Your task to perform on an android device: refresh tabs in the chrome app Image 0: 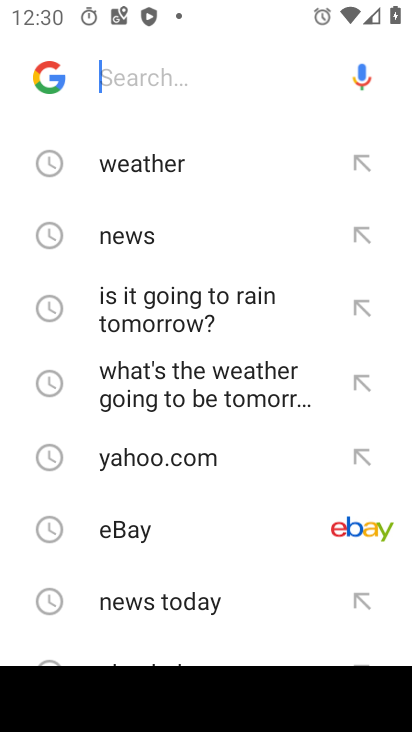
Step 0: press home button
Your task to perform on an android device: refresh tabs in the chrome app Image 1: 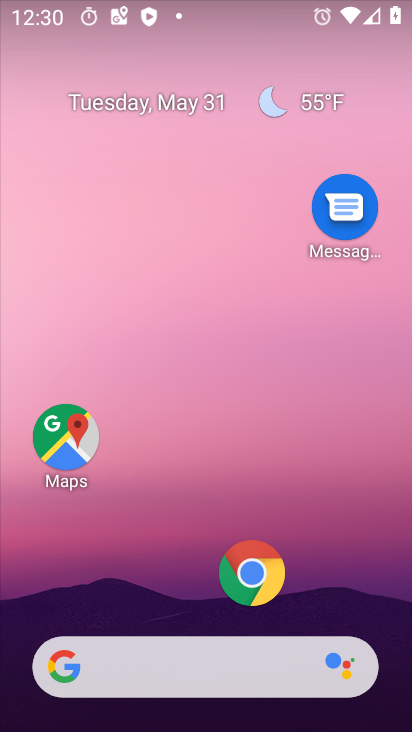
Step 1: click (247, 570)
Your task to perform on an android device: refresh tabs in the chrome app Image 2: 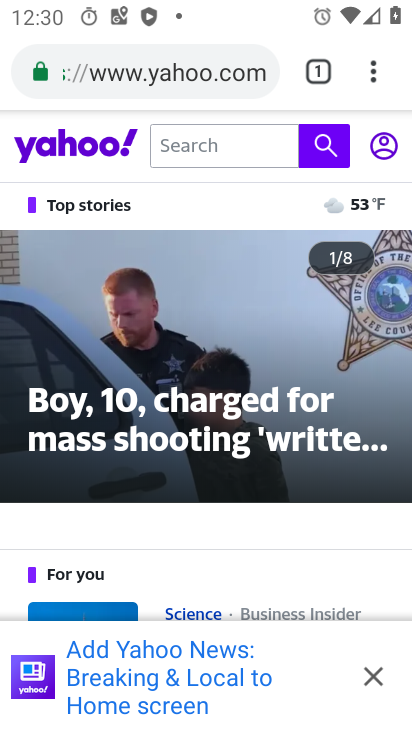
Step 2: click (375, 74)
Your task to perform on an android device: refresh tabs in the chrome app Image 3: 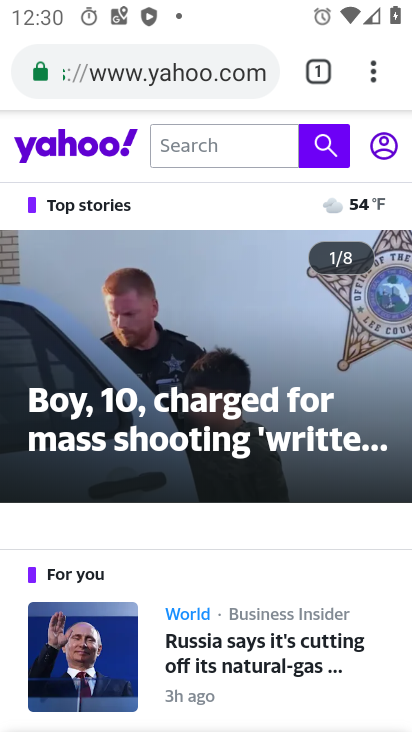
Step 3: click (377, 72)
Your task to perform on an android device: refresh tabs in the chrome app Image 4: 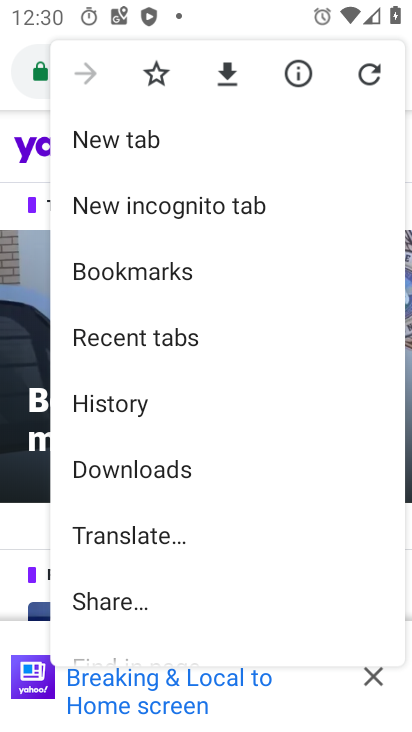
Step 4: click (373, 65)
Your task to perform on an android device: refresh tabs in the chrome app Image 5: 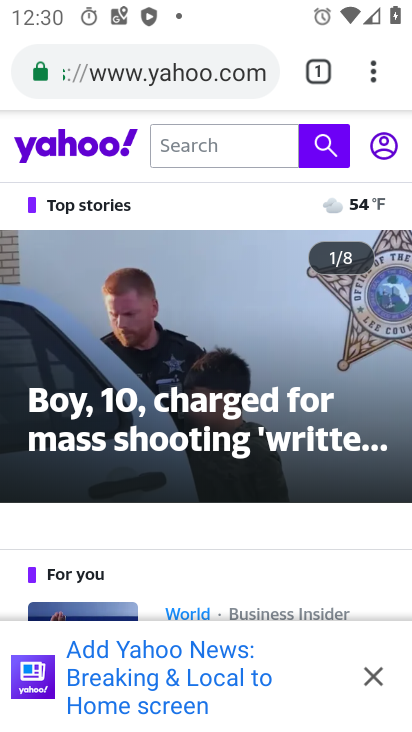
Step 5: task complete